Your task to perform on an android device: turn pop-ups on in chrome Image 0: 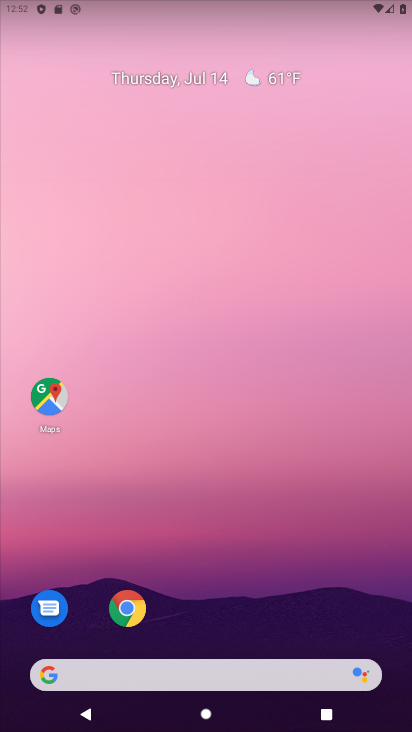
Step 0: drag from (366, 629) to (371, 119)
Your task to perform on an android device: turn pop-ups on in chrome Image 1: 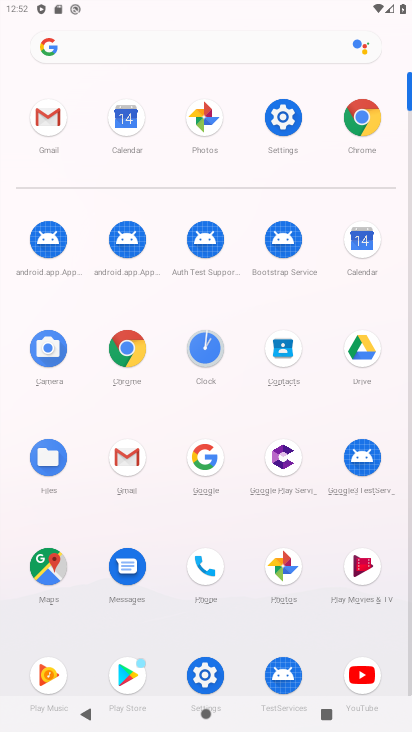
Step 1: click (369, 127)
Your task to perform on an android device: turn pop-ups on in chrome Image 2: 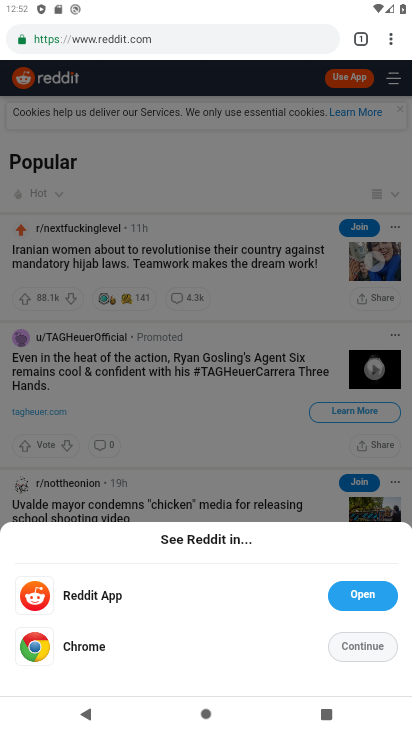
Step 2: click (396, 43)
Your task to perform on an android device: turn pop-ups on in chrome Image 3: 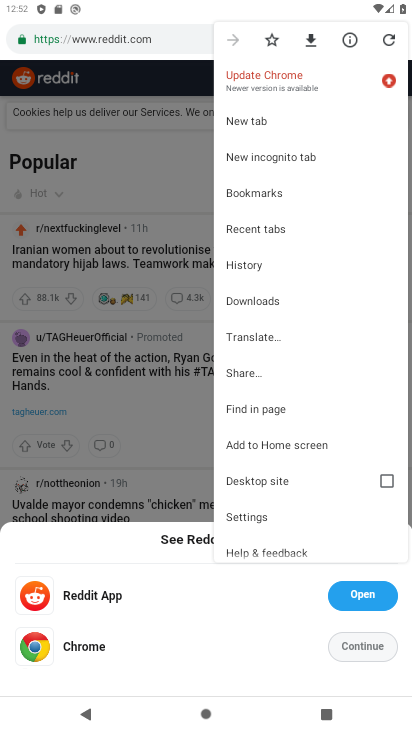
Step 3: click (276, 518)
Your task to perform on an android device: turn pop-ups on in chrome Image 4: 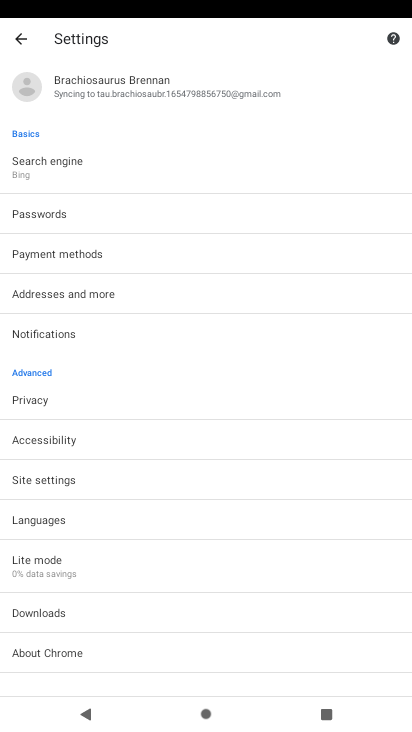
Step 4: drag from (263, 508) to (262, 424)
Your task to perform on an android device: turn pop-ups on in chrome Image 5: 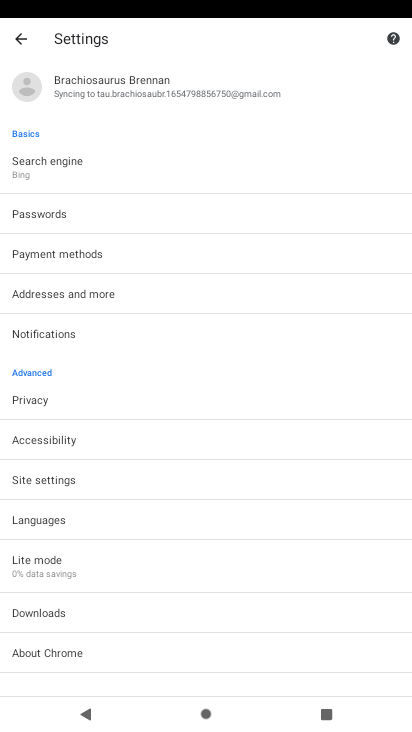
Step 5: click (119, 483)
Your task to perform on an android device: turn pop-ups on in chrome Image 6: 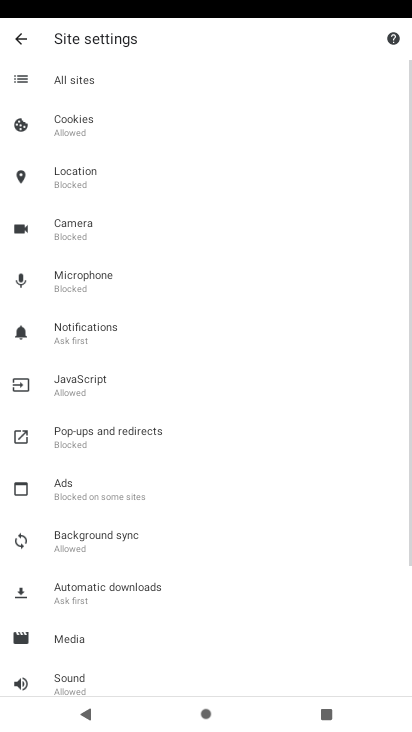
Step 6: drag from (239, 507) to (255, 417)
Your task to perform on an android device: turn pop-ups on in chrome Image 7: 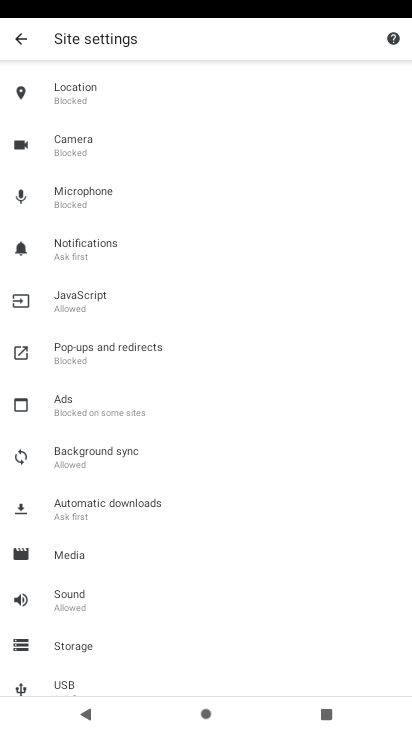
Step 7: drag from (256, 542) to (255, 434)
Your task to perform on an android device: turn pop-ups on in chrome Image 8: 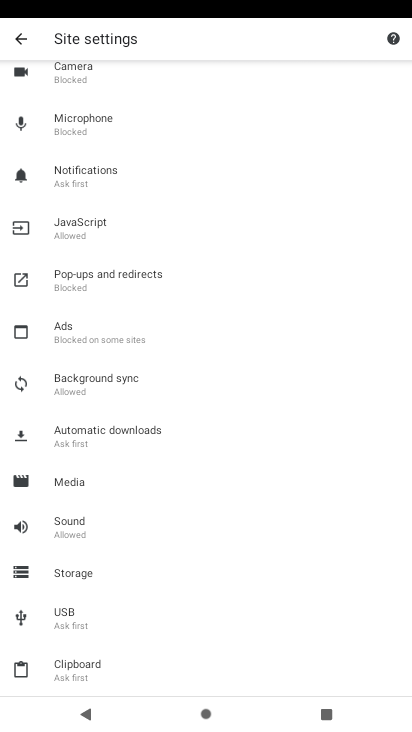
Step 8: drag from (252, 570) to (256, 448)
Your task to perform on an android device: turn pop-ups on in chrome Image 9: 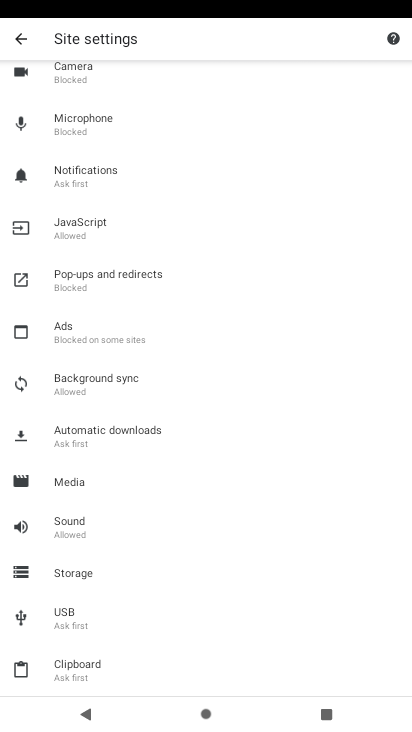
Step 9: drag from (268, 314) to (269, 409)
Your task to perform on an android device: turn pop-ups on in chrome Image 10: 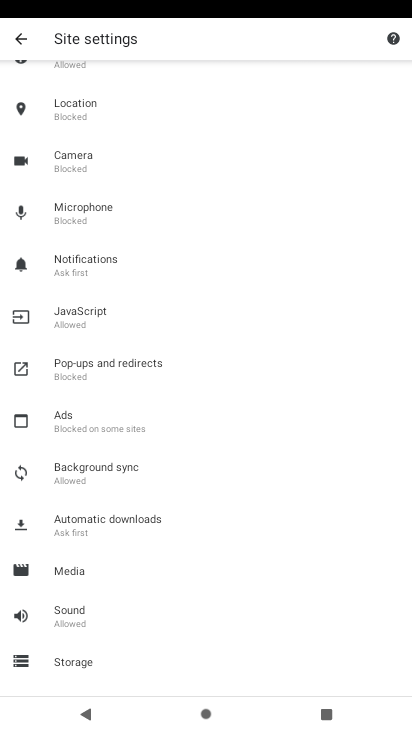
Step 10: drag from (284, 278) to (288, 441)
Your task to perform on an android device: turn pop-ups on in chrome Image 11: 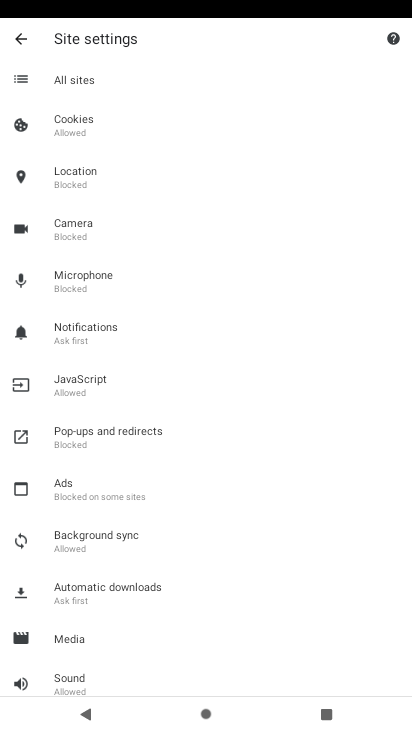
Step 11: click (163, 433)
Your task to perform on an android device: turn pop-ups on in chrome Image 12: 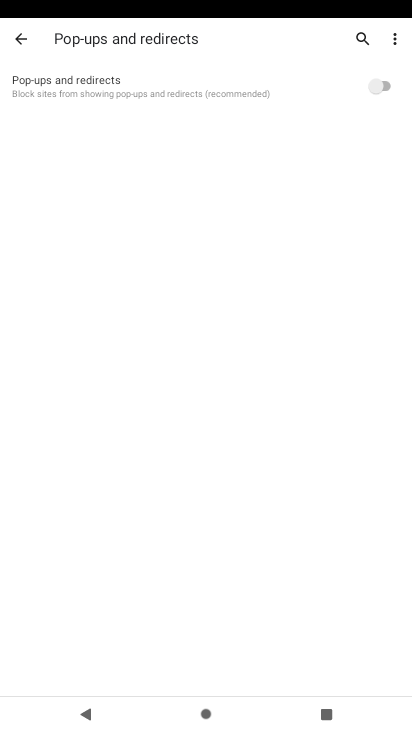
Step 12: click (374, 87)
Your task to perform on an android device: turn pop-ups on in chrome Image 13: 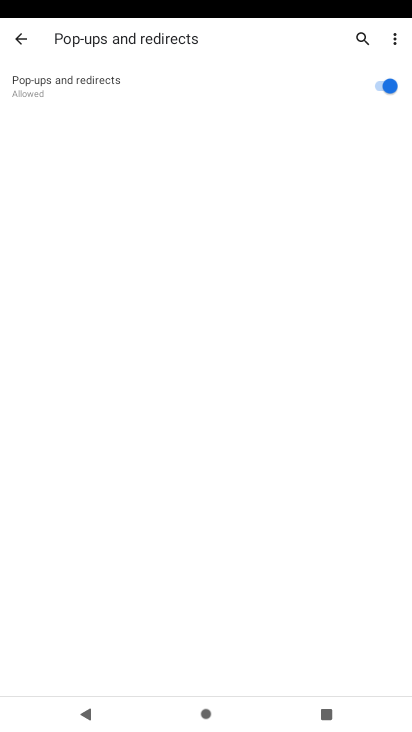
Step 13: task complete